Your task to perform on an android device: choose inbox layout in the gmail app Image 0: 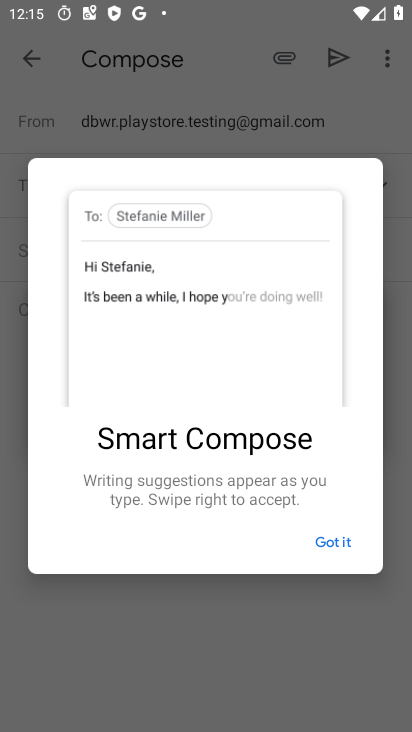
Step 0: press home button
Your task to perform on an android device: choose inbox layout in the gmail app Image 1: 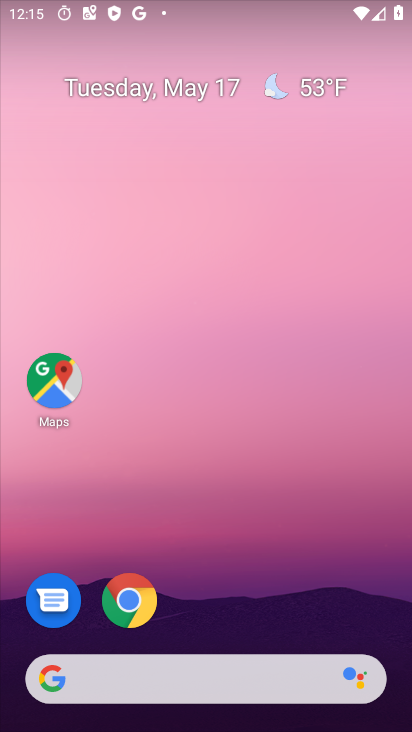
Step 1: drag from (263, 622) to (339, 75)
Your task to perform on an android device: choose inbox layout in the gmail app Image 2: 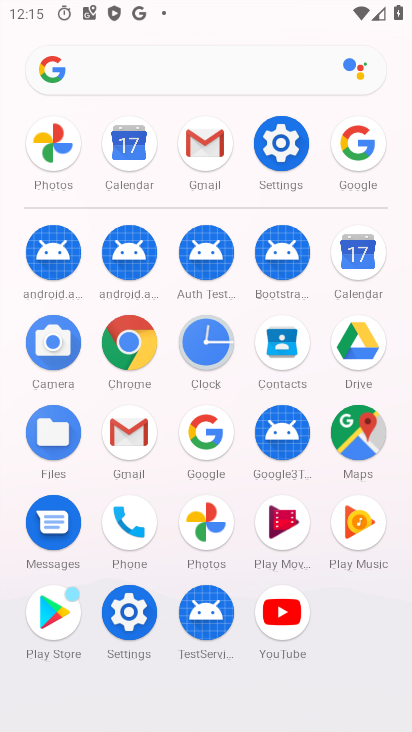
Step 2: click (136, 430)
Your task to perform on an android device: choose inbox layout in the gmail app Image 3: 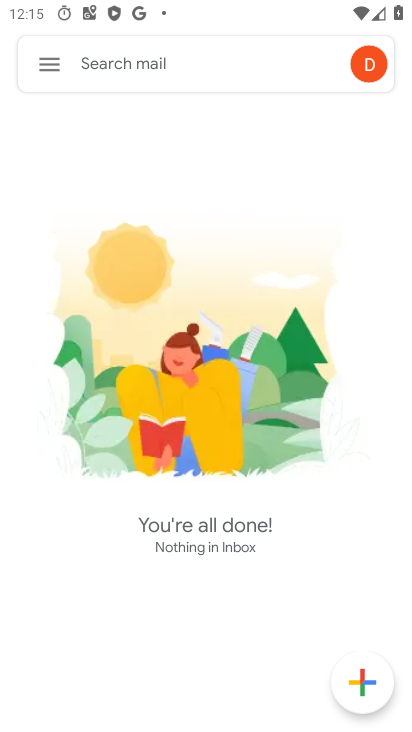
Step 3: click (57, 67)
Your task to perform on an android device: choose inbox layout in the gmail app Image 4: 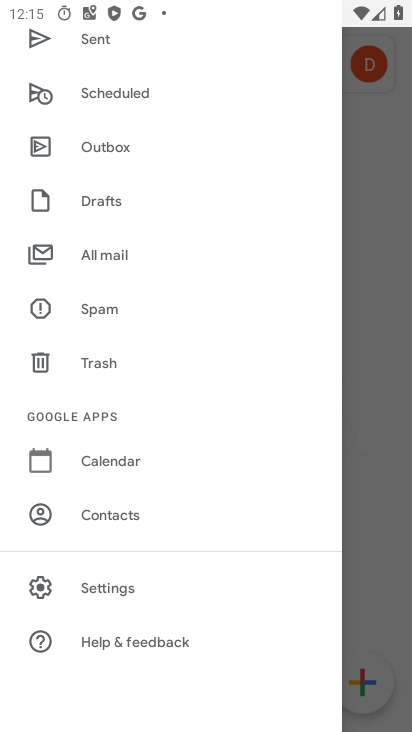
Step 4: click (171, 571)
Your task to perform on an android device: choose inbox layout in the gmail app Image 5: 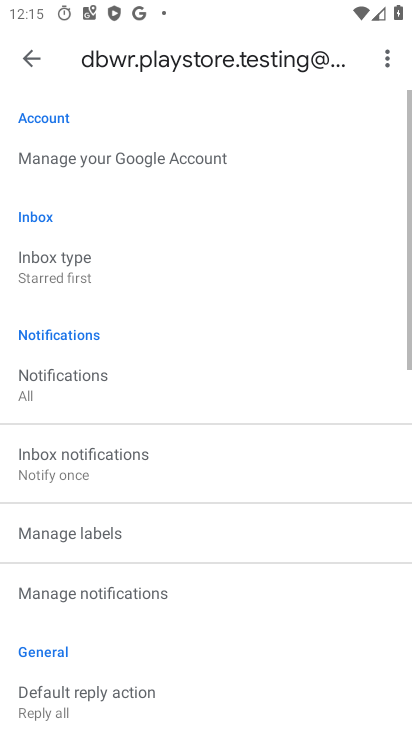
Step 5: click (103, 270)
Your task to perform on an android device: choose inbox layout in the gmail app Image 6: 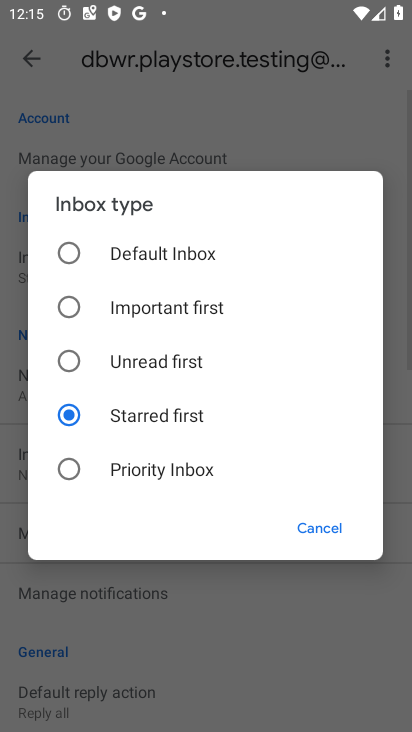
Step 6: click (140, 238)
Your task to perform on an android device: choose inbox layout in the gmail app Image 7: 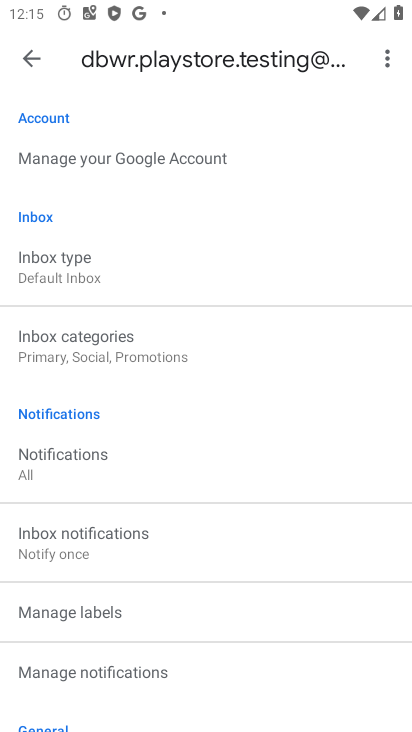
Step 7: task complete